Your task to perform on an android device: Check the settings for the Instagram app Image 0: 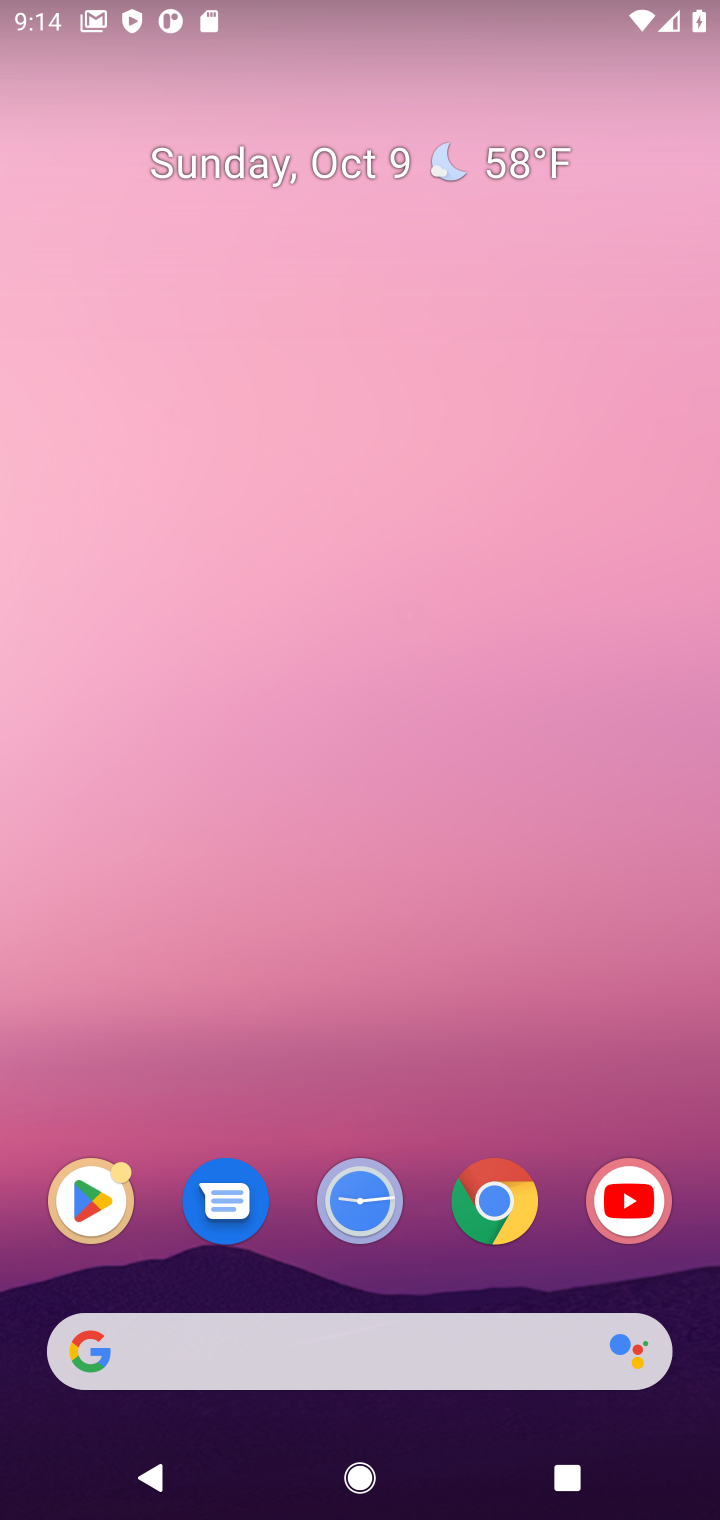
Step 0: drag from (262, 1333) to (412, 428)
Your task to perform on an android device: Check the settings for the Instagram app Image 1: 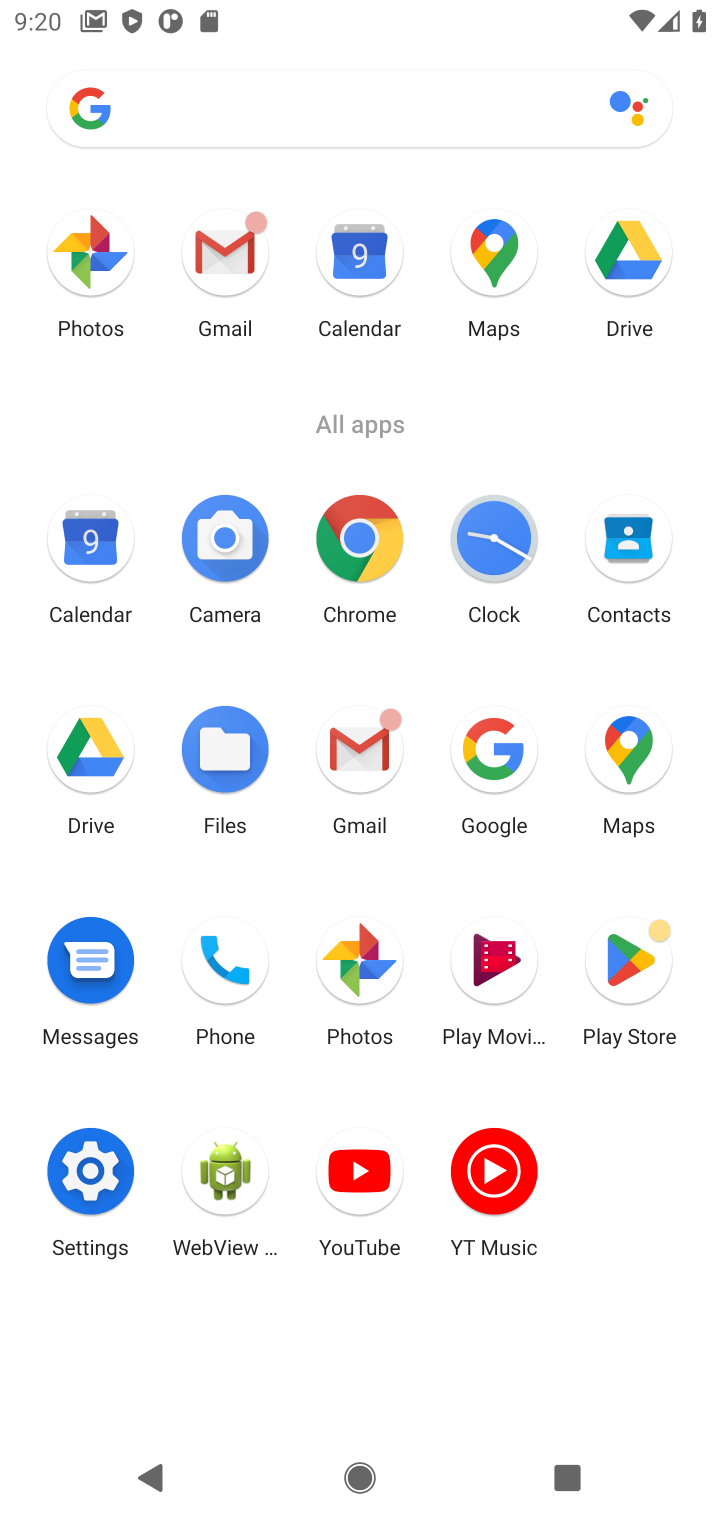
Step 1: click (491, 753)
Your task to perform on an android device: Check the settings for the Instagram app Image 2: 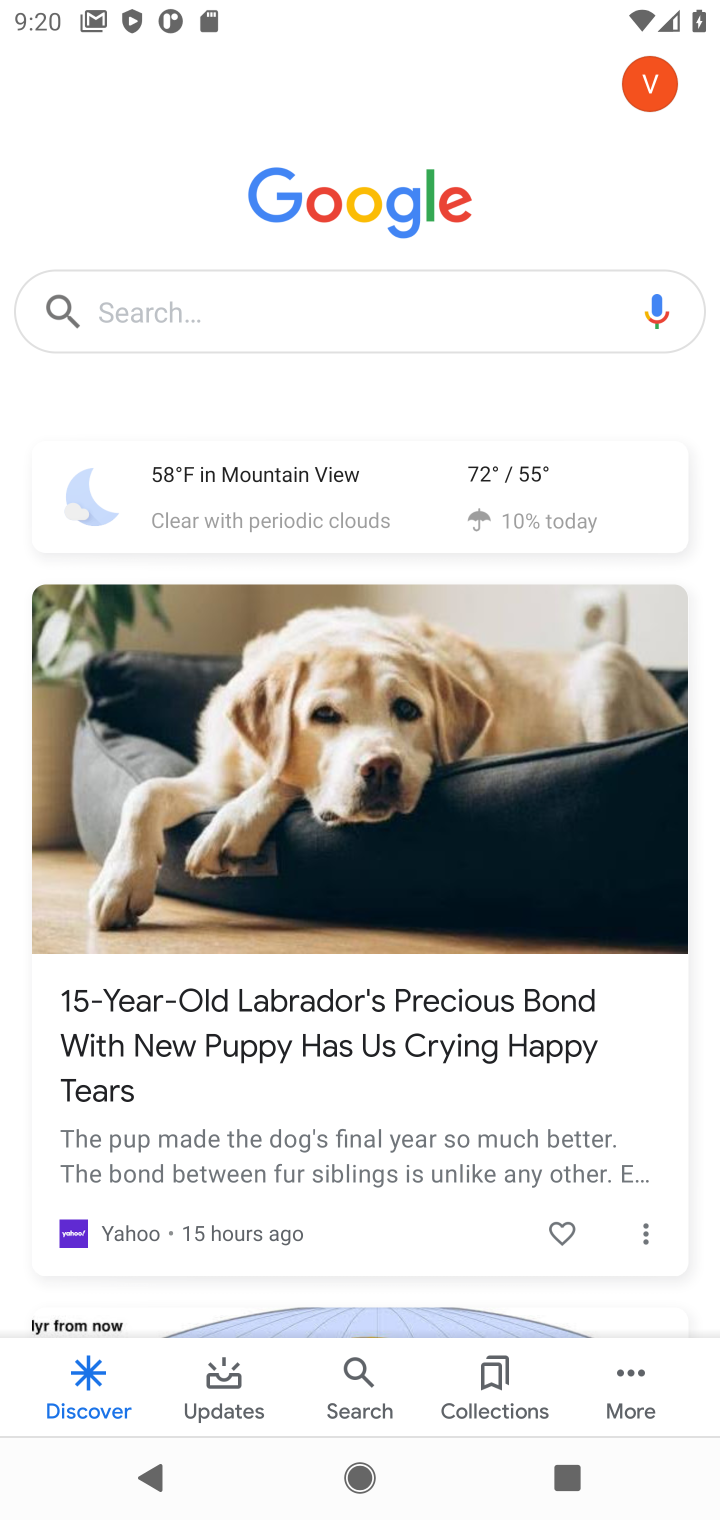
Step 2: type "Check the settings for the Instagram app"
Your task to perform on an android device: Check the settings for the Instagram app Image 3: 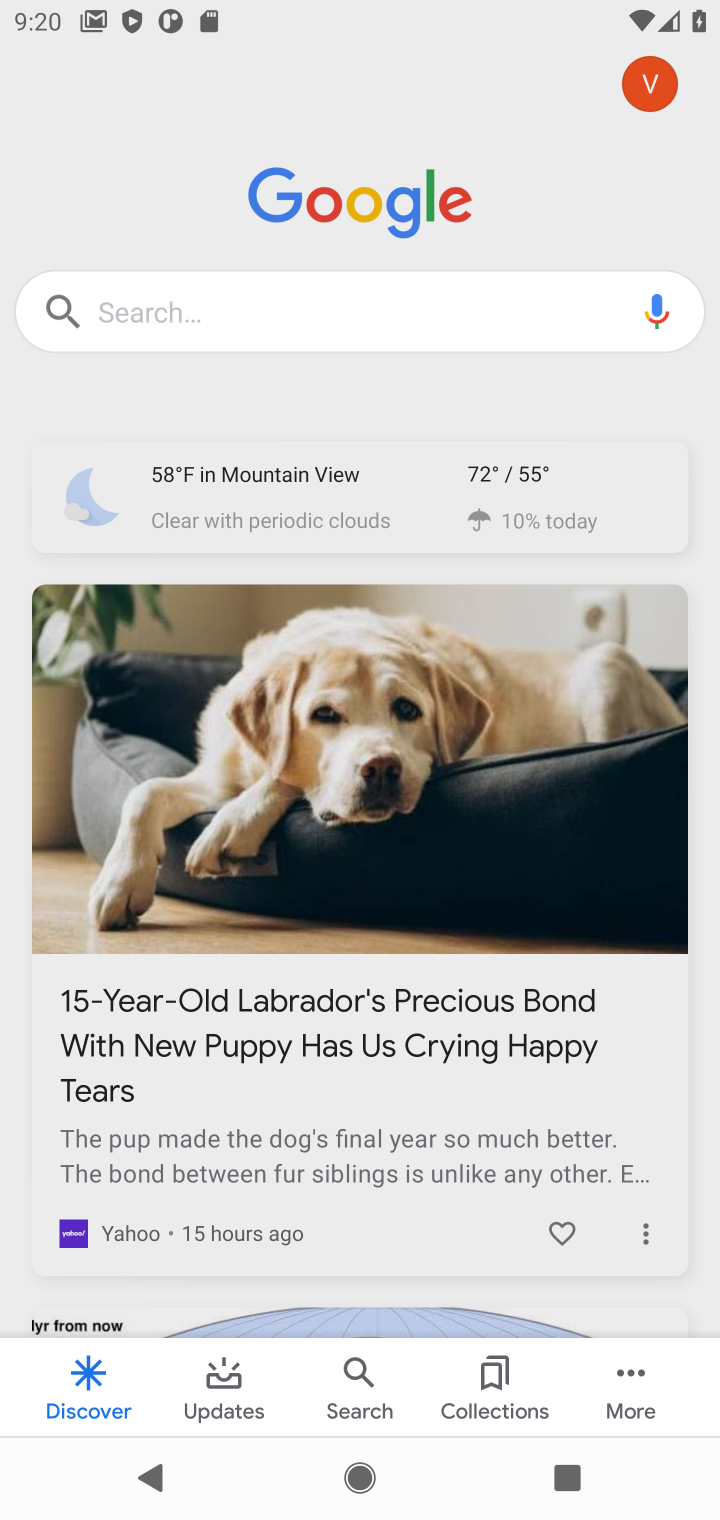
Step 3: click (128, 313)
Your task to perform on an android device: Check the settings for the Instagram app Image 4: 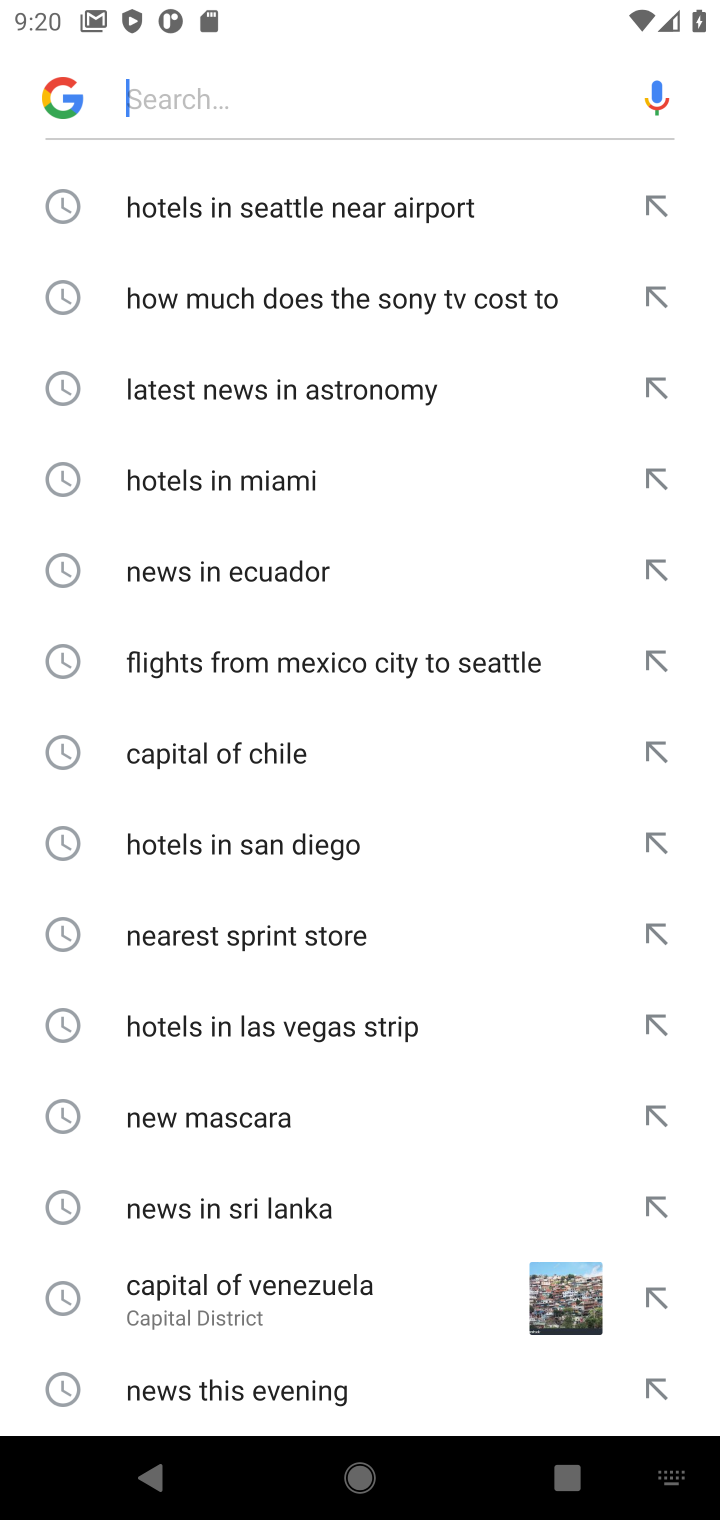
Step 4: type "Check the settings for the Instagram app"
Your task to perform on an android device: Check the settings for the Instagram app Image 5: 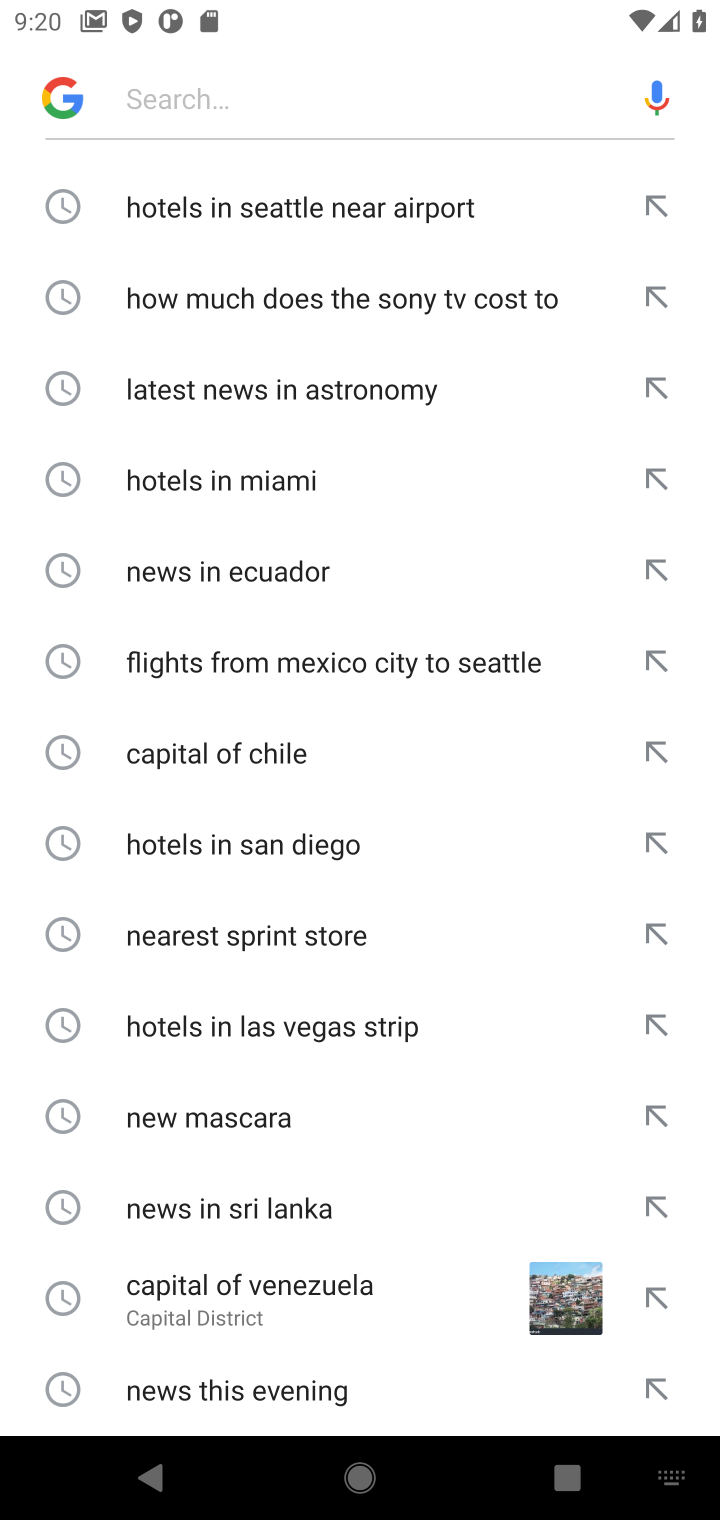
Step 5: click (194, 108)
Your task to perform on an android device: Check the settings for the Instagram app Image 6: 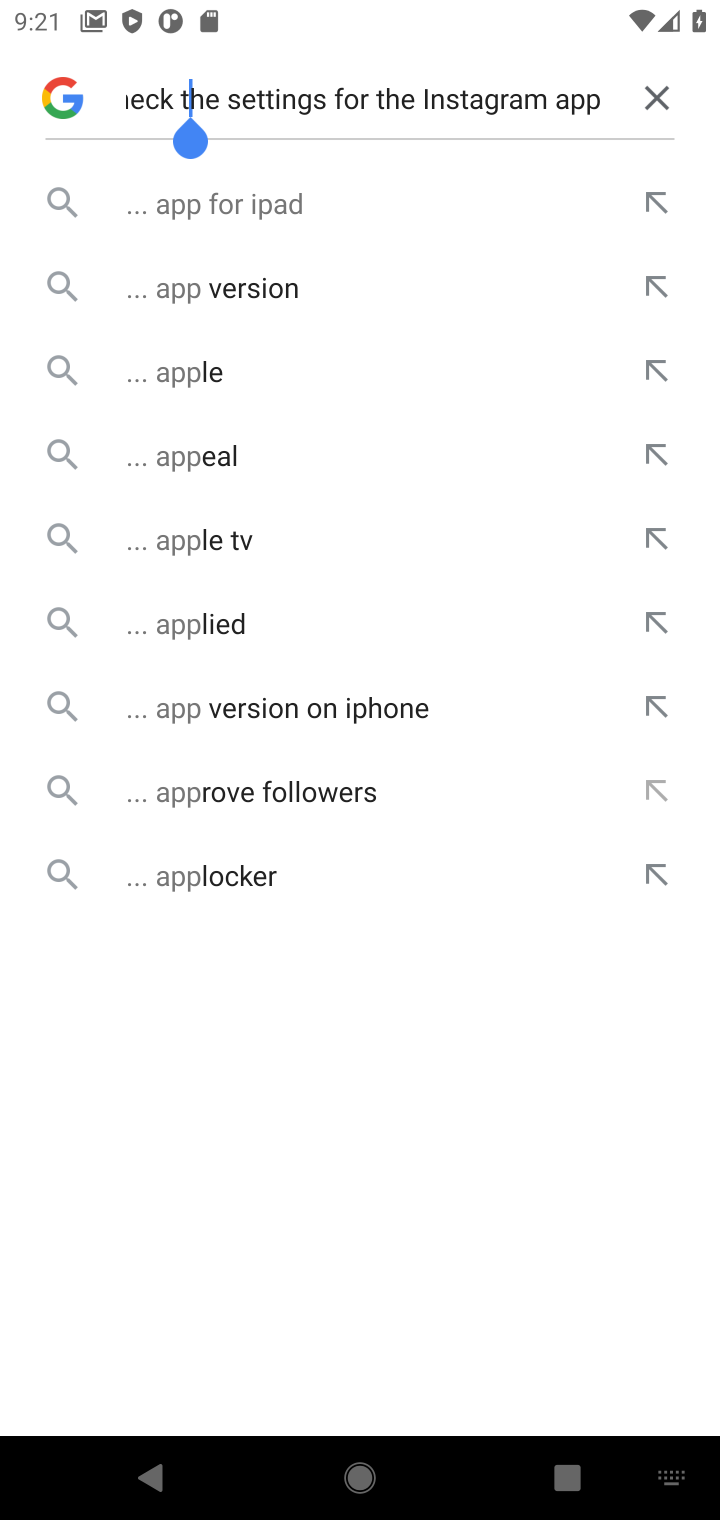
Step 6: type "Check the settings for the Instagram app"
Your task to perform on an android device: Check the settings for the Instagram app Image 7: 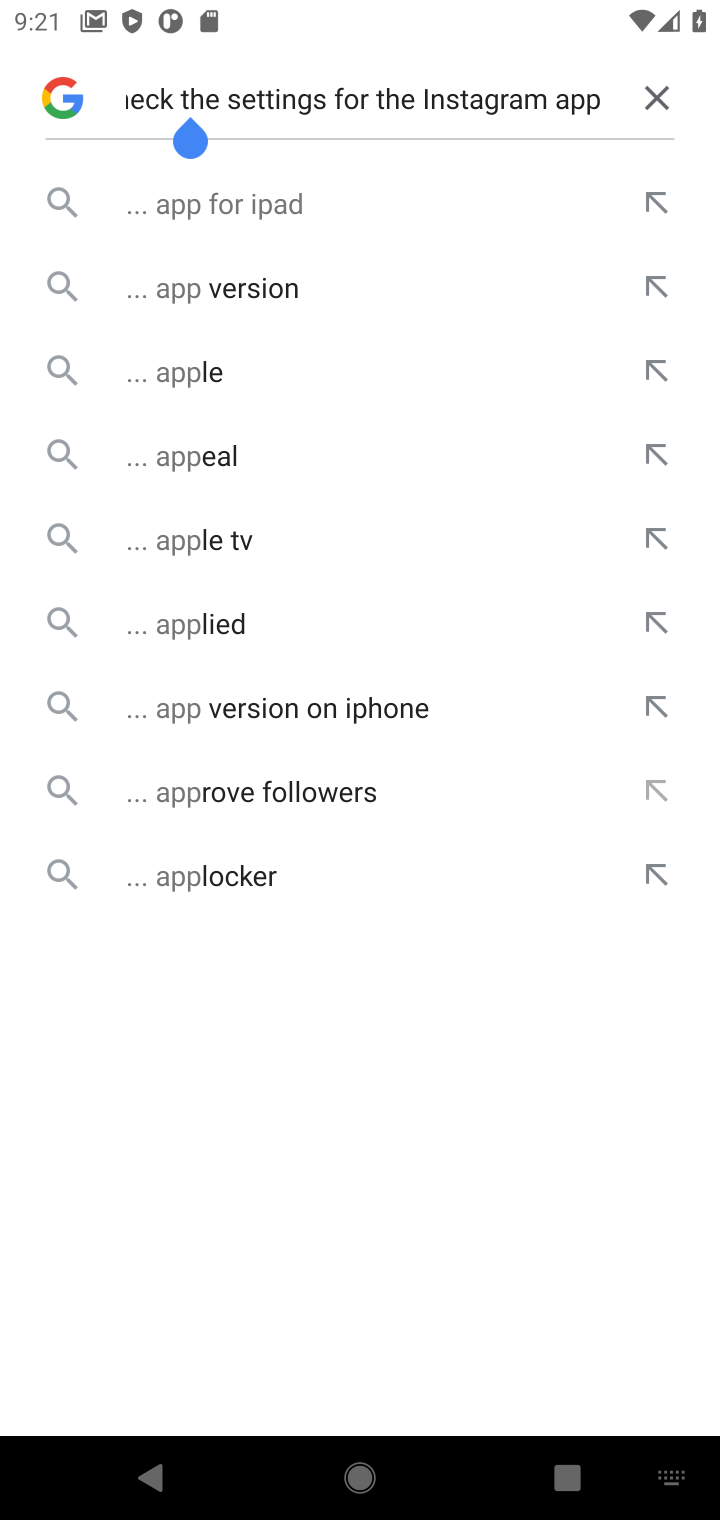
Step 7: click (221, 296)
Your task to perform on an android device: Check the settings for the Instagram app Image 8: 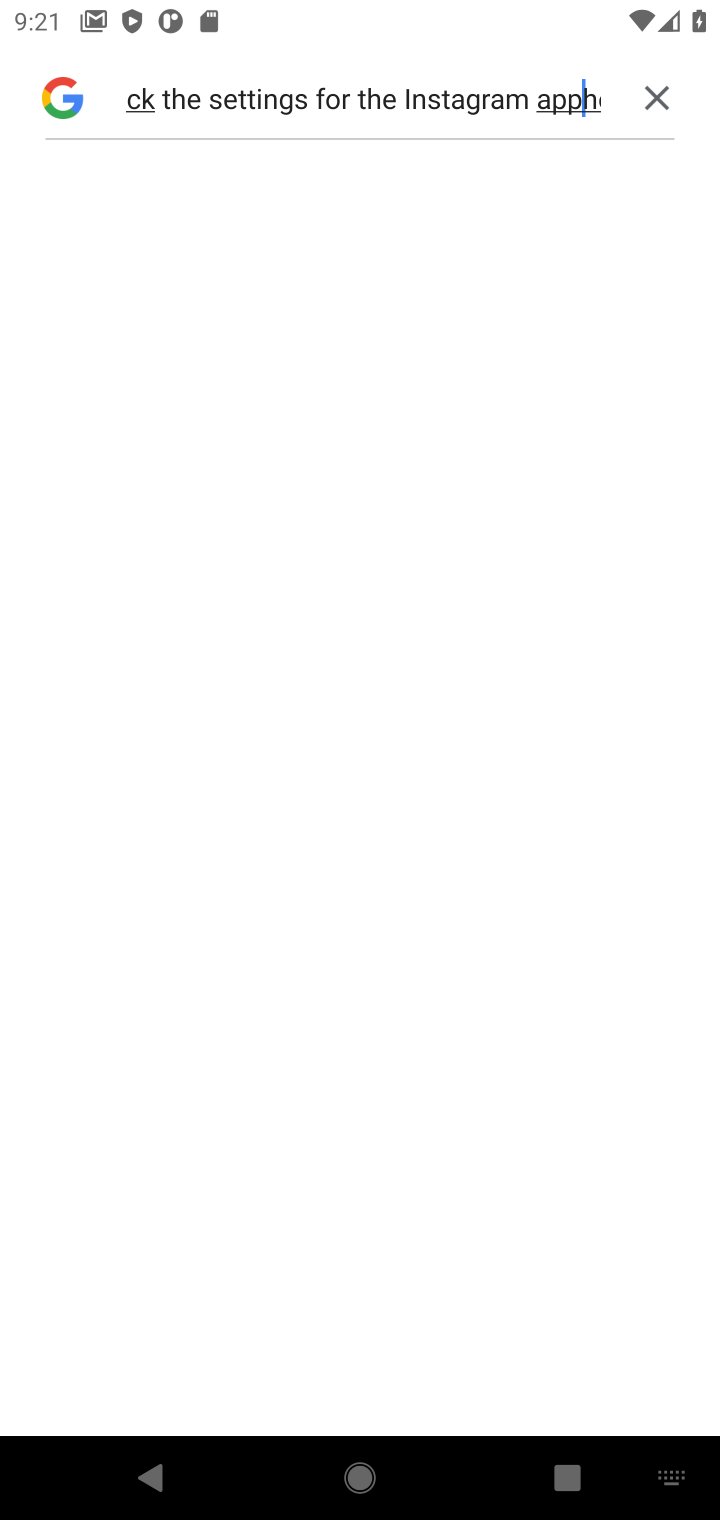
Step 8: task complete